Your task to perform on an android device: Show me recent news Image 0: 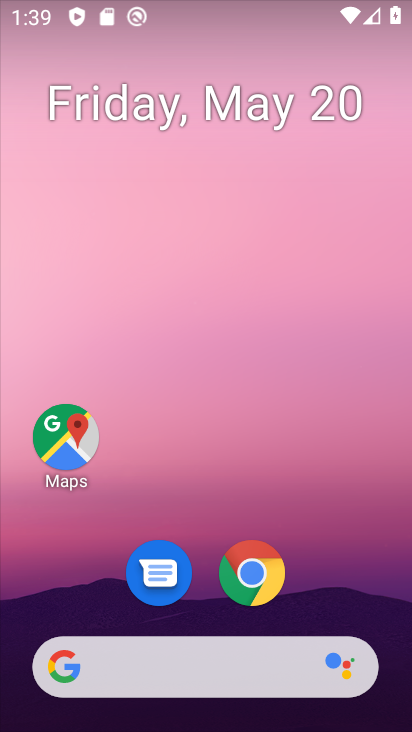
Step 0: drag from (404, 674) to (314, 2)
Your task to perform on an android device: Show me recent news Image 1: 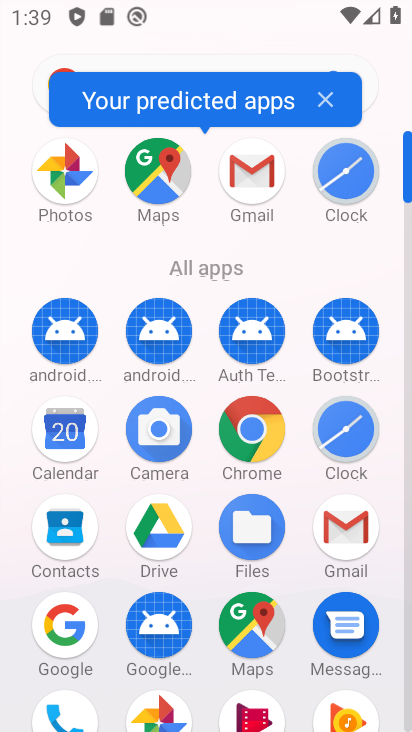
Step 1: click (66, 620)
Your task to perform on an android device: Show me recent news Image 2: 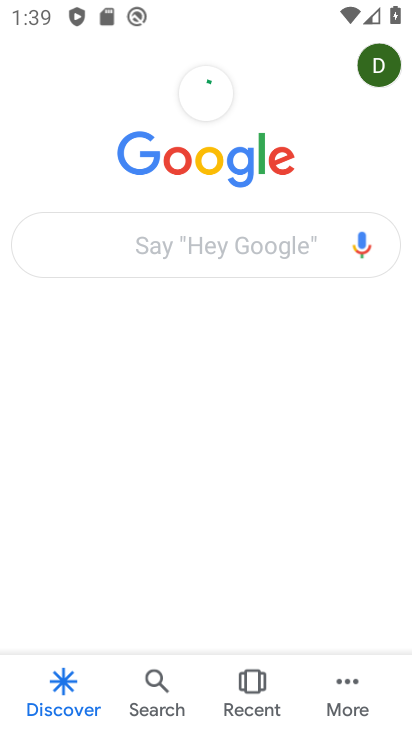
Step 2: click (171, 240)
Your task to perform on an android device: Show me recent news Image 3: 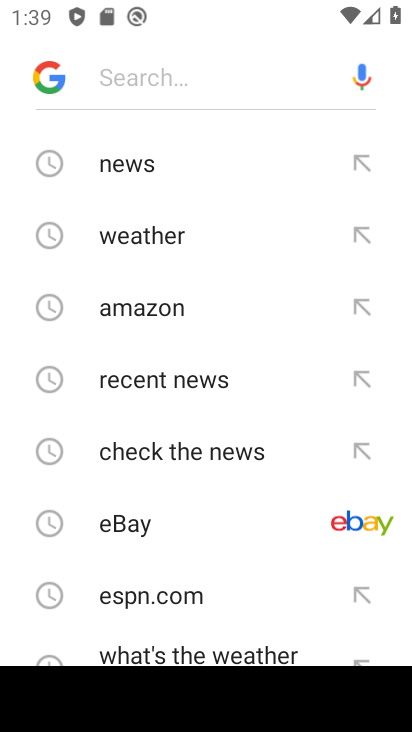
Step 3: click (189, 167)
Your task to perform on an android device: Show me recent news Image 4: 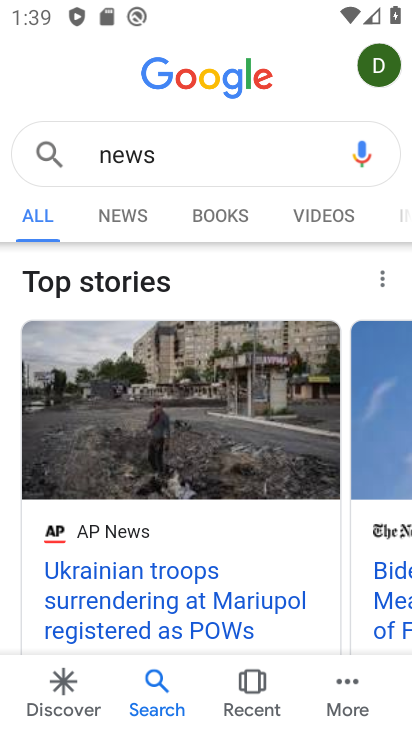
Step 4: task complete